Your task to perform on an android device: Go to battery settings Image 0: 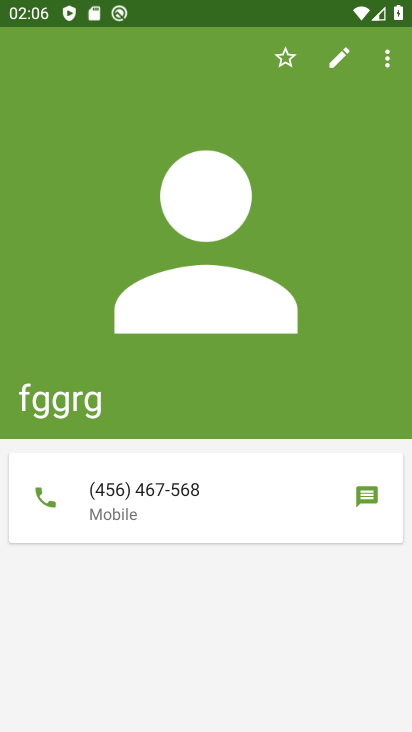
Step 0: press home button
Your task to perform on an android device: Go to battery settings Image 1: 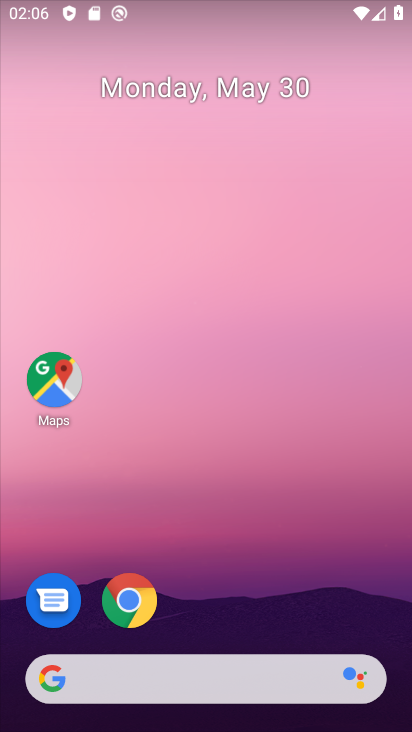
Step 1: drag from (238, 613) to (296, 42)
Your task to perform on an android device: Go to battery settings Image 2: 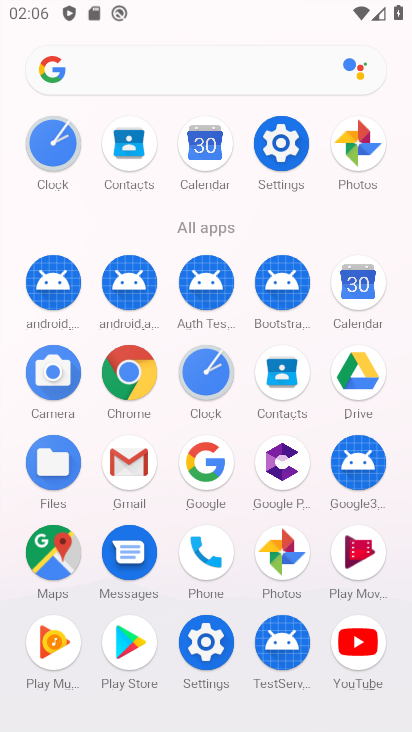
Step 2: click (287, 131)
Your task to perform on an android device: Go to battery settings Image 3: 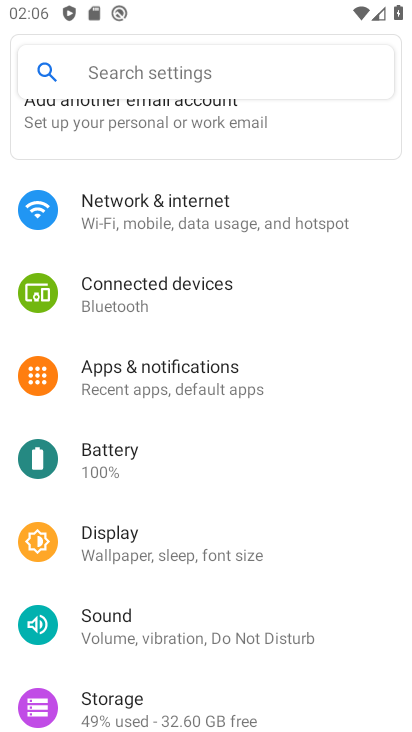
Step 3: click (133, 467)
Your task to perform on an android device: Go to battery settings Image 4: 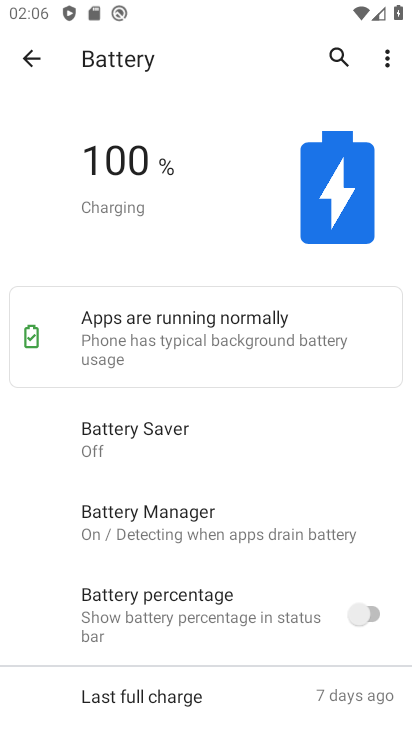
Step 4: task complete